Your task to perform on an android device: remove spam from my inbox in the gmail app Image 0: 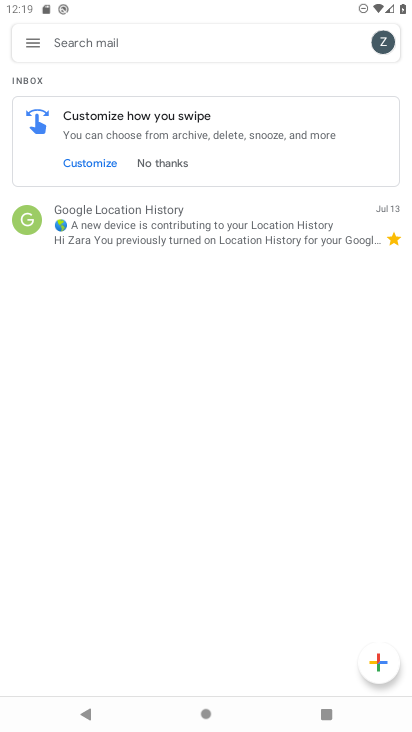
Step 0: task impossible